Your task to perform on an android device: Is it going to rain today? Image 0: 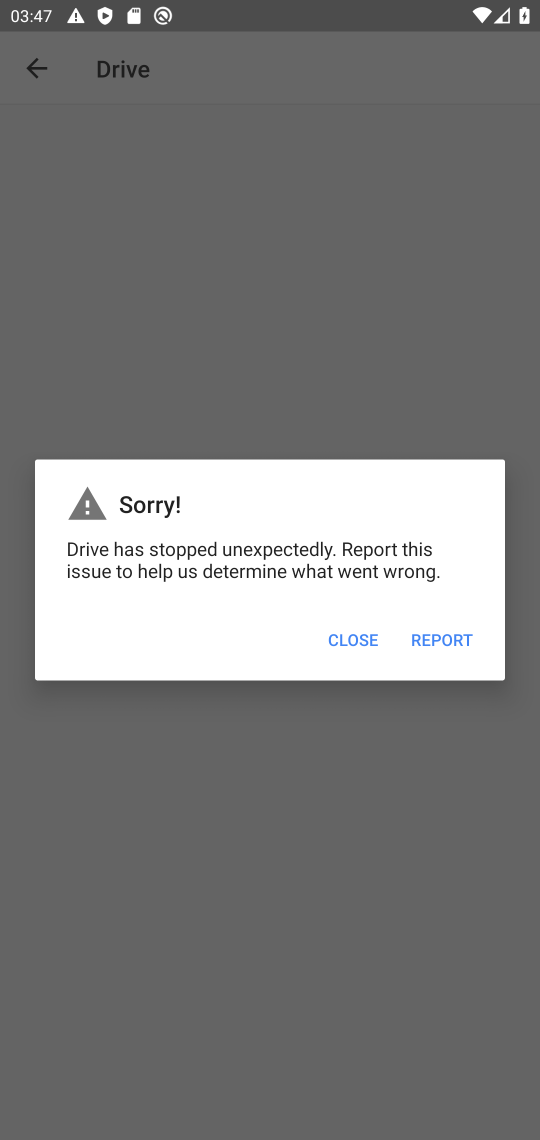
Step 0: press home button
Your task to perform on an android device: Is it going to rain today? Image 1: 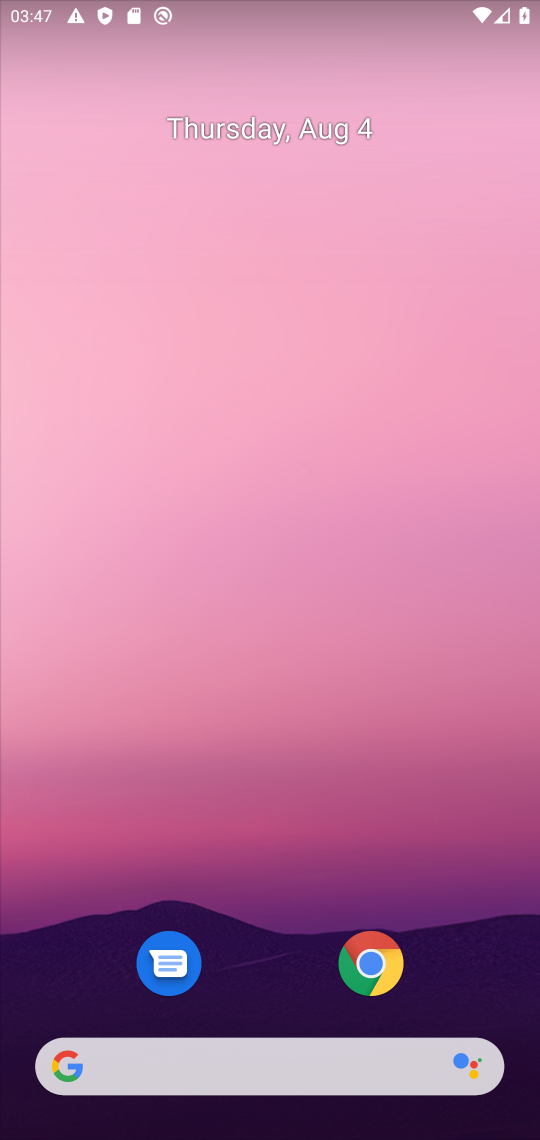
Step 1: click (173, 1067)
Your task to perform on an android device: Is it going to rain today? Image 2: 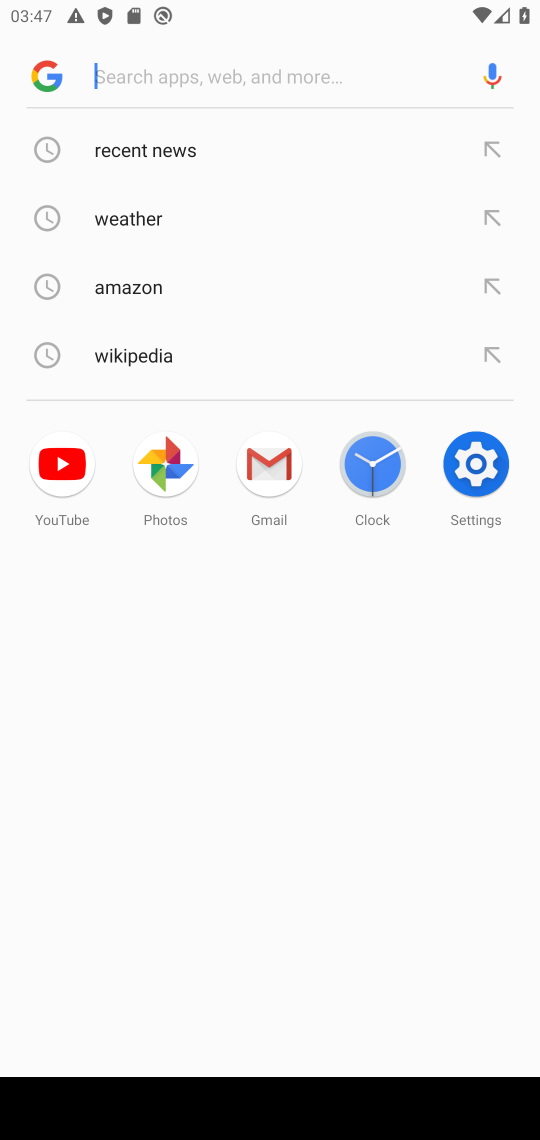
Step 2: click (138, 227)
Your task to perform on an android device: Is it going to rain today? Image 3: 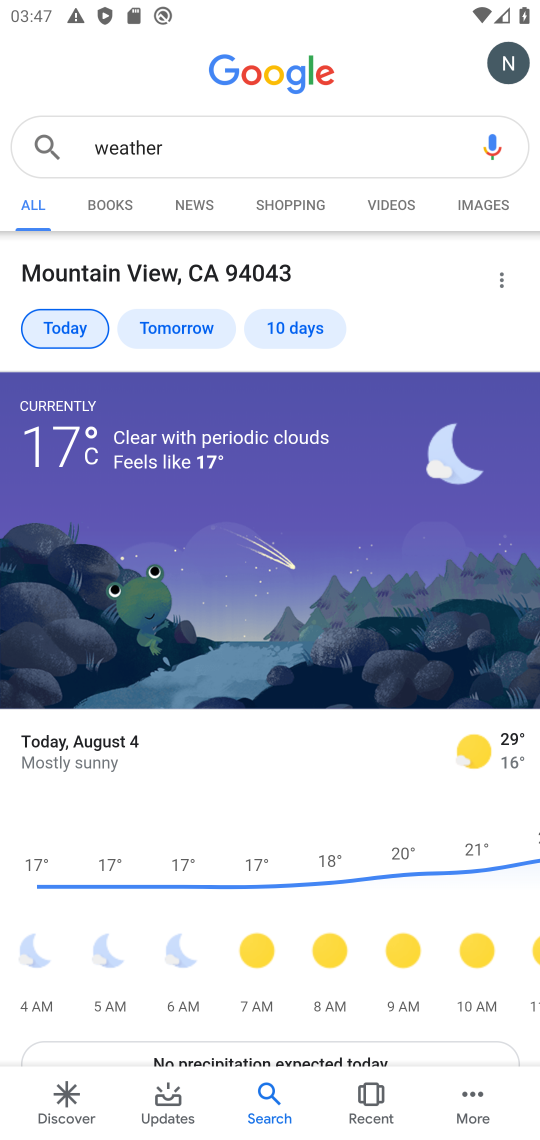
Step 3: task complete